Your task to perform on an android device: change the clock style Image 0: 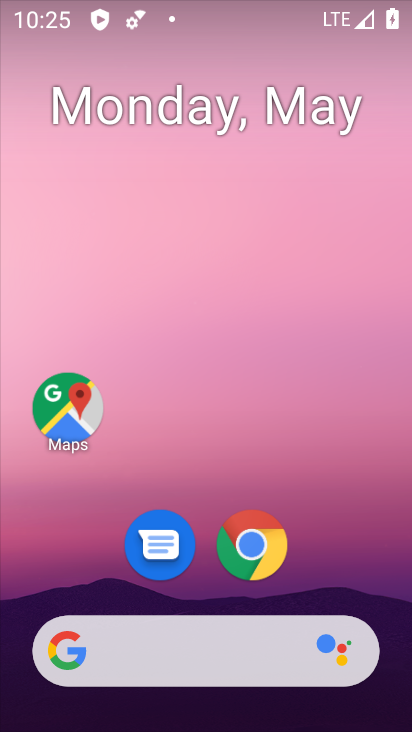
Step 0: drag from (320, 548) to (196, 134)
Your task to perform on an android device: change the clock style Image 1: 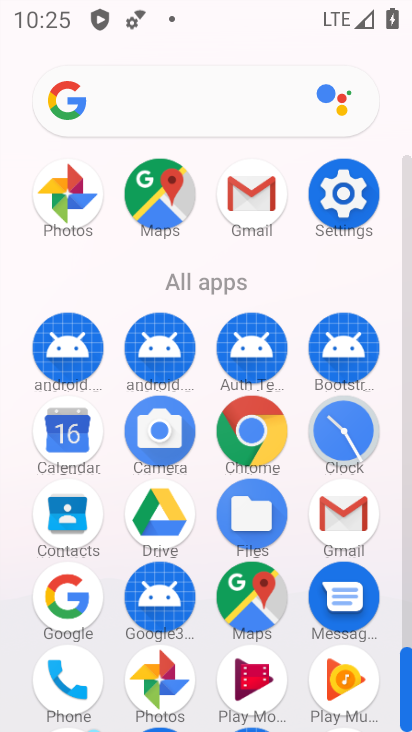
Step 1: click (347, 432)
Your task to perform on an android device: change the clock style Image 2: 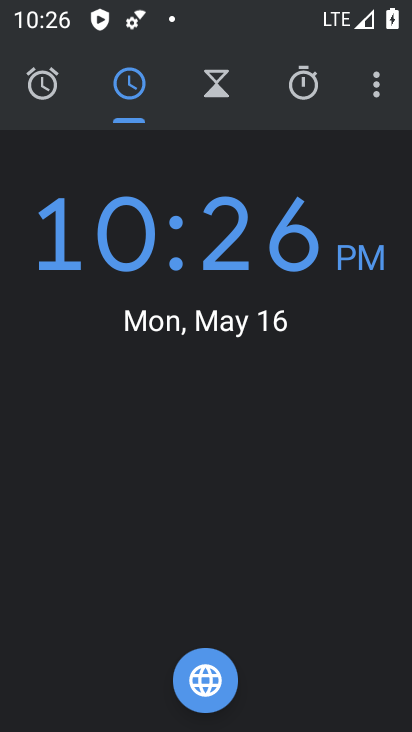
Step 2: click (378, 82)
Your task to perform on an android device: change the clock style Image 3: 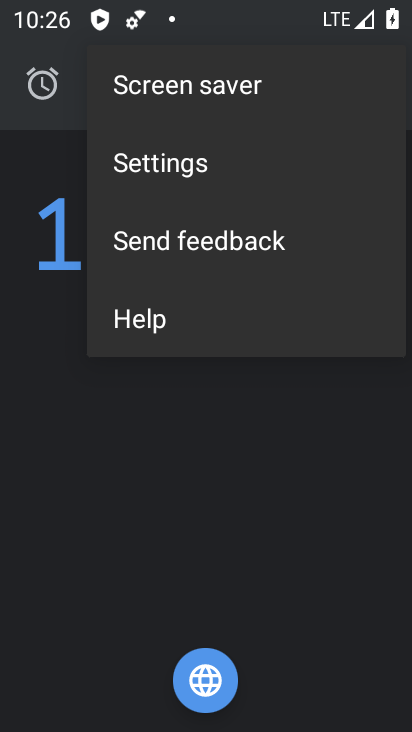
Step 3: click (191, 157)
Your task to perform on an android device: change the clock style Image 4: 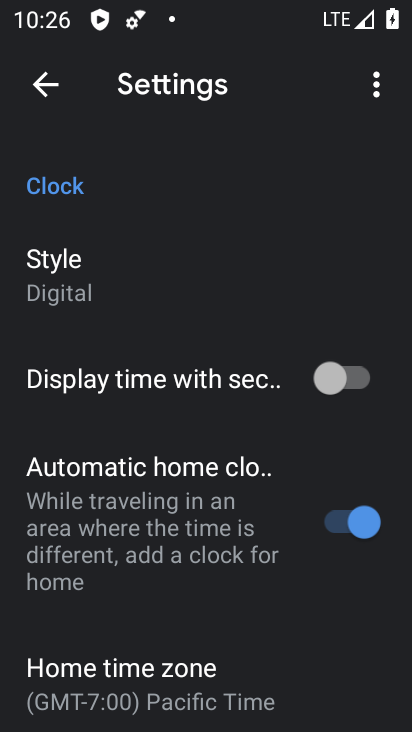
Step 4: click (66, 274)
Your task to perform on an android device: change the clock style Image 5: 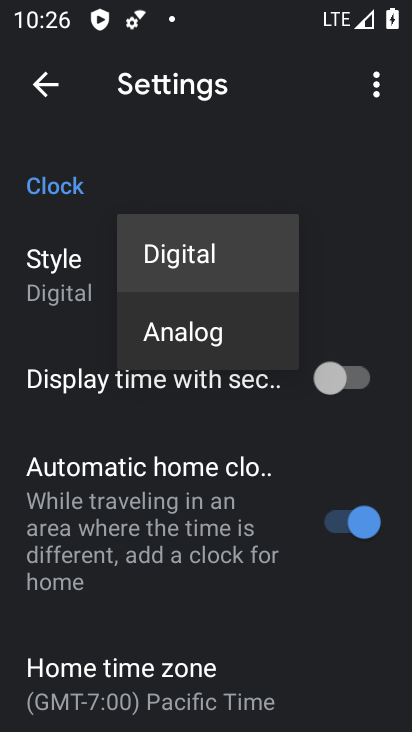
Step 5: click (186, 332)
Your task to perform on an android device: change the clock style Image 6: 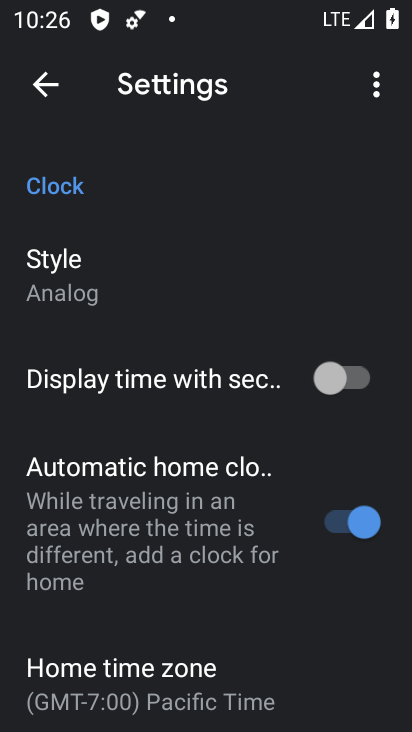
Step 6: task complete